Your task to perform on an android device: Go to ESPN.com Image 0: 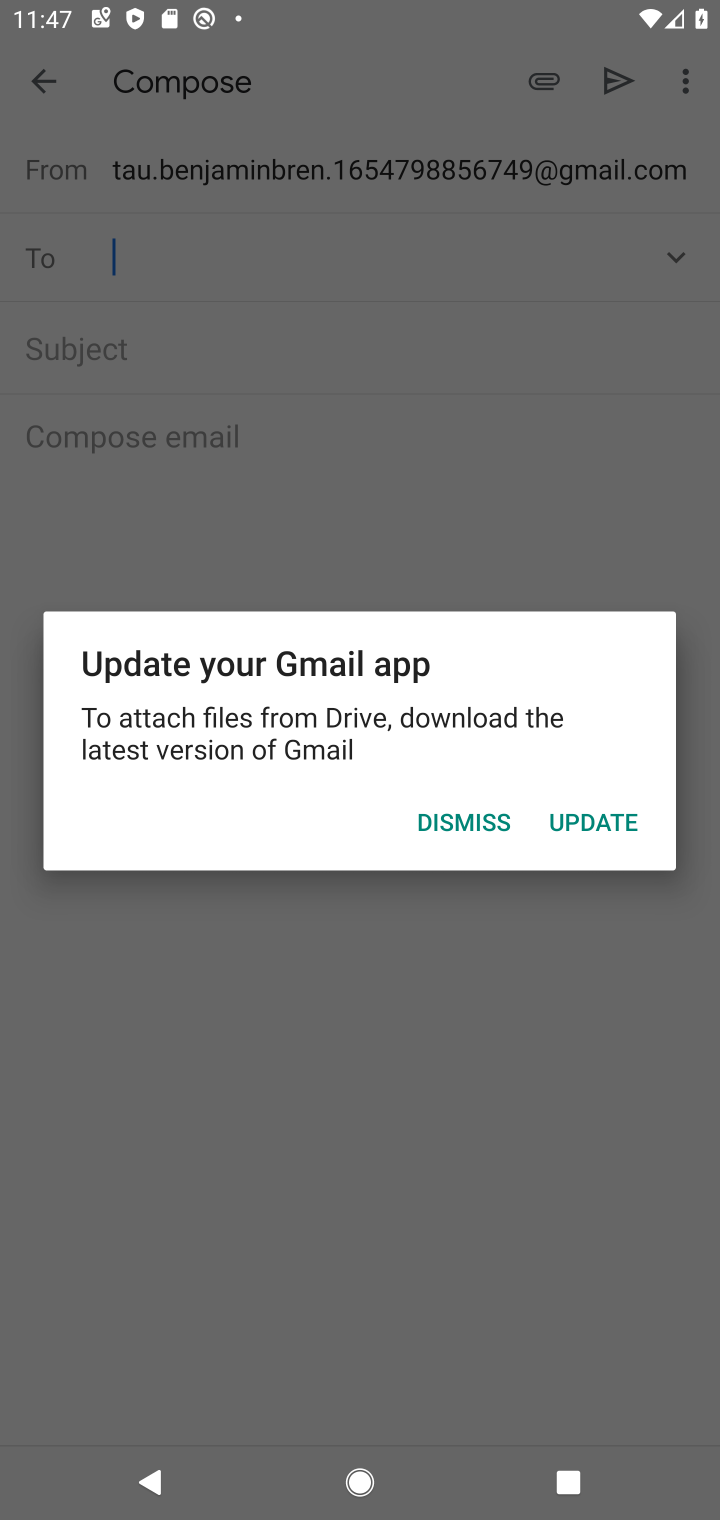
Step 0: press back button
Your task to perform on an android device: Go to ESPN.com Image 1: 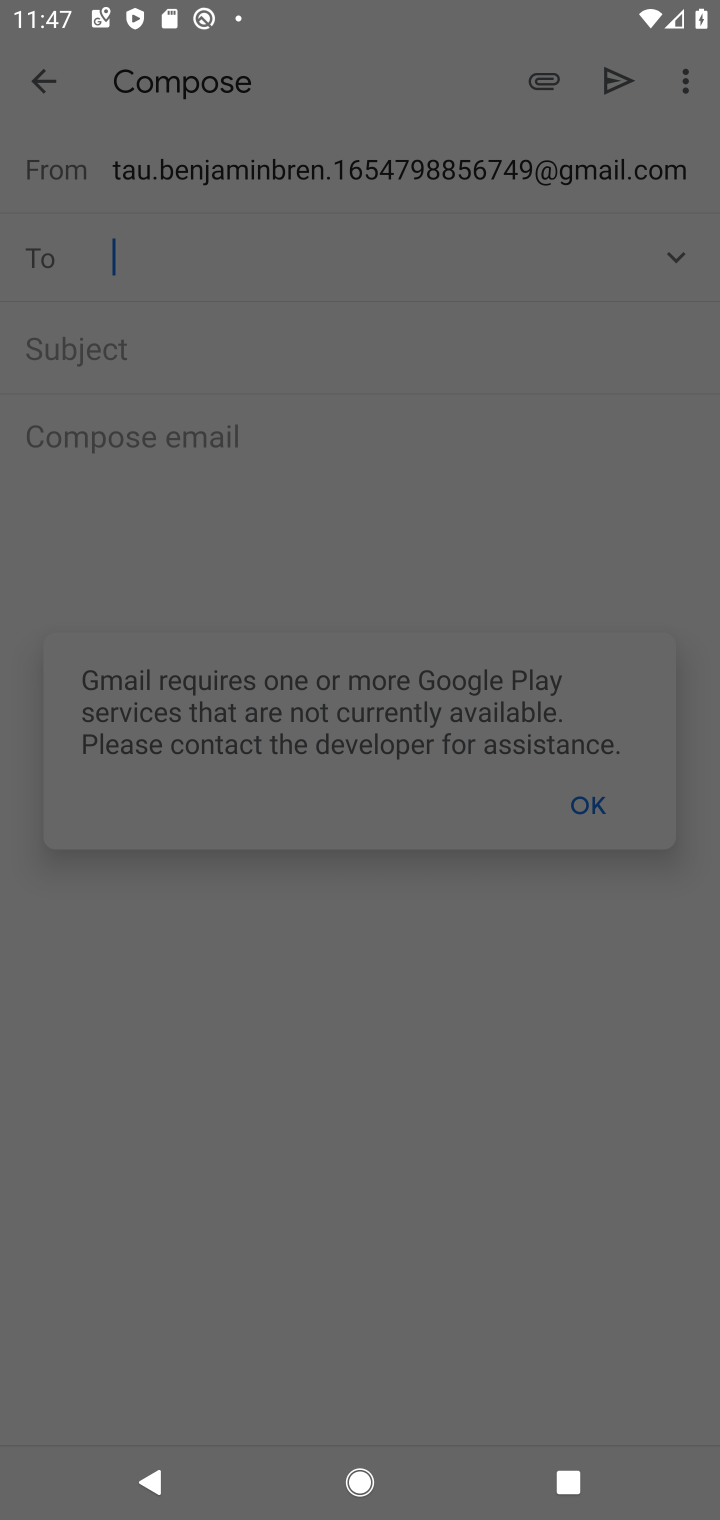
Step 1: press home button
Your task to perform on an android device: Go to ESPN.com Image 2: 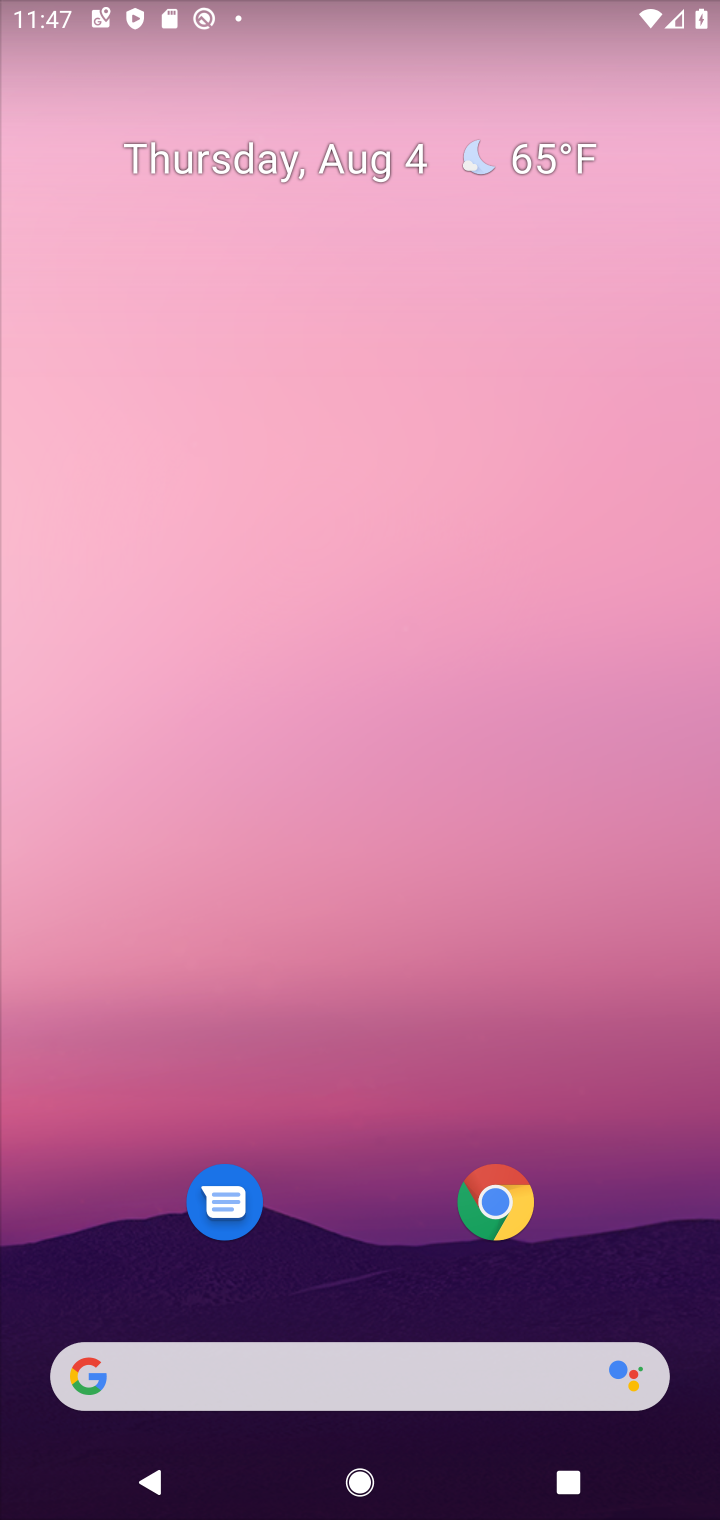
Step 2: click (518, 1195)
Your task to perform on an android device: Go to ESPN.com Image 3: 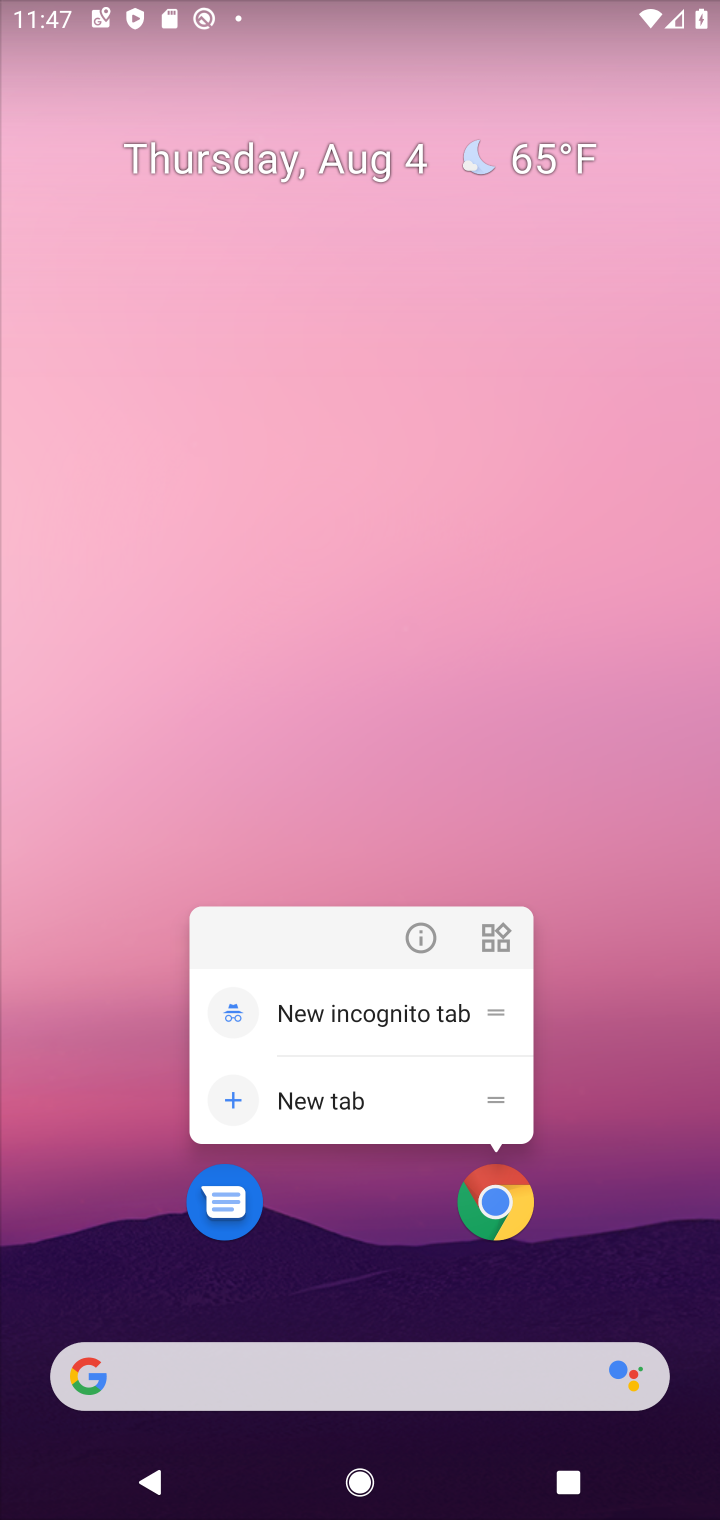
Step 3: click (505, 1199)
Your task to perform on an android device: Go to ESPN.com Image 4: 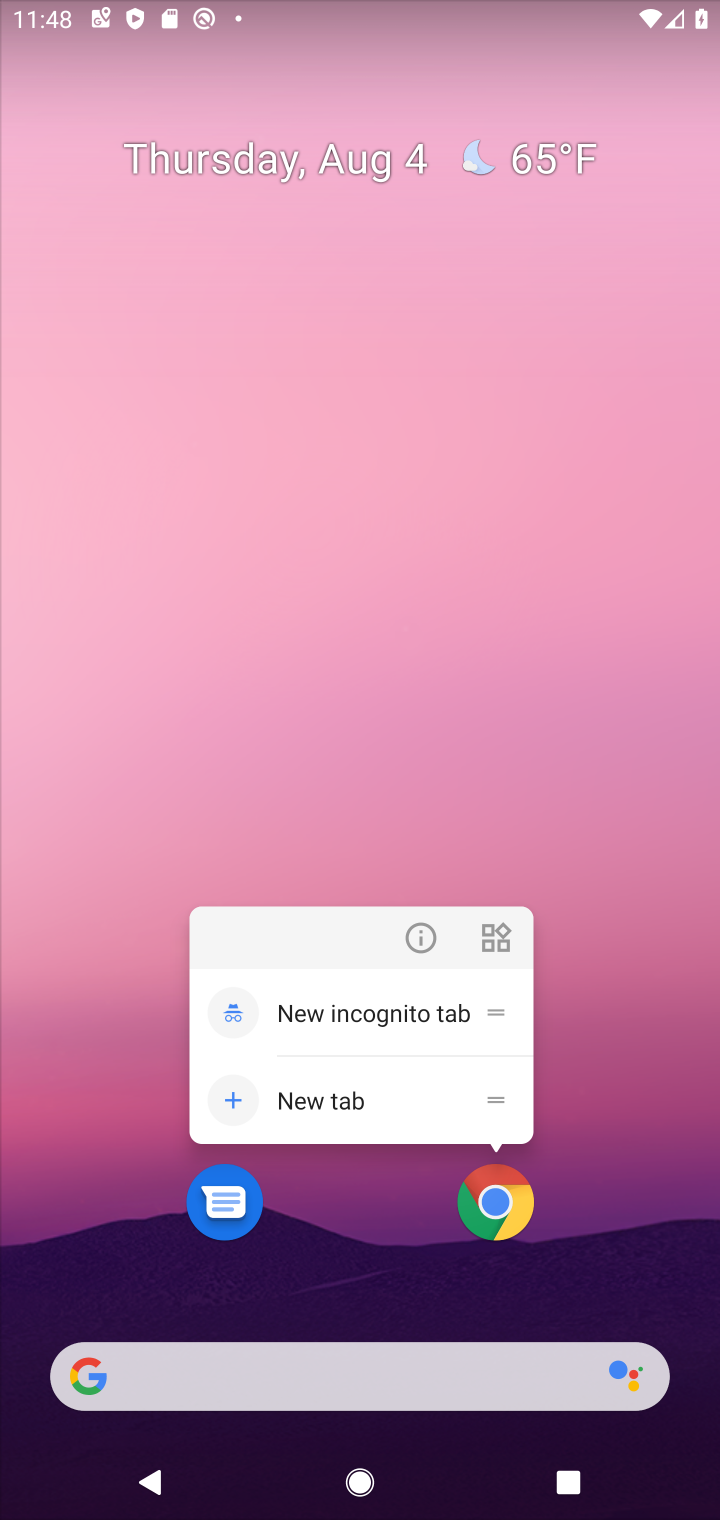
Step 4: click (501, 1199)
Your task to perform on an android device: Go to ESPN.com Image 5: 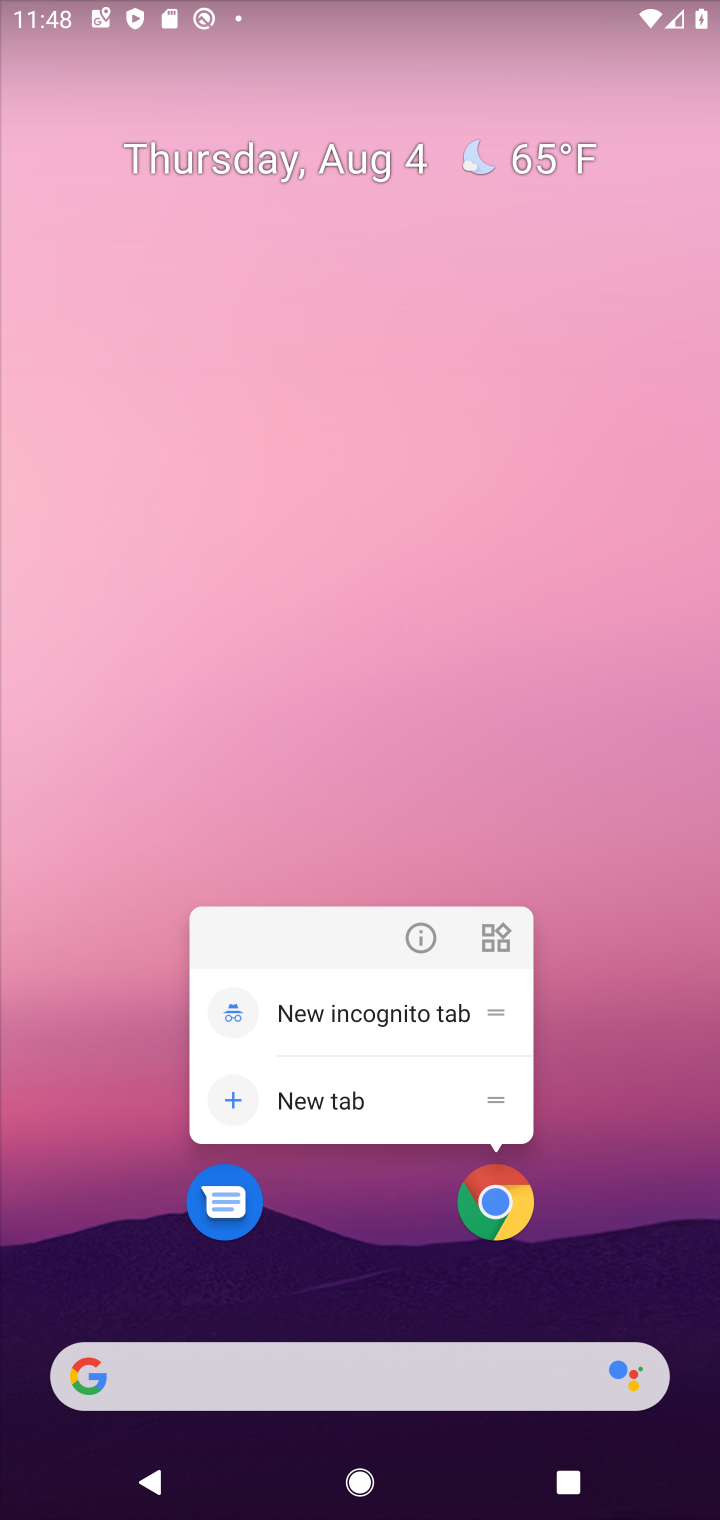
Step 5: click (501, 1199)
Your task to perform on an android device: Go to ESPN.com Image 6: 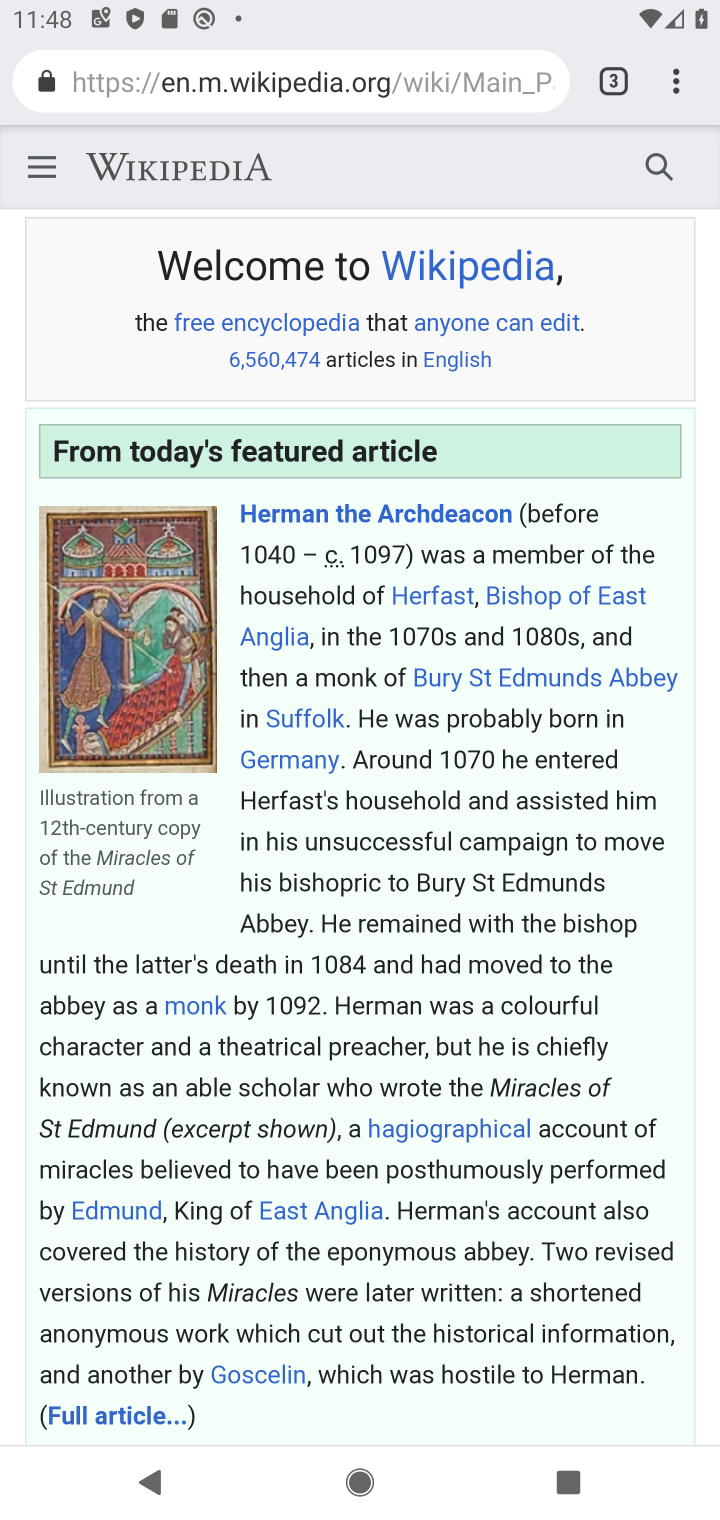
Step 6: click (616, 60)
Your task to perform on an android device: Go to ESPN.com Image 7: 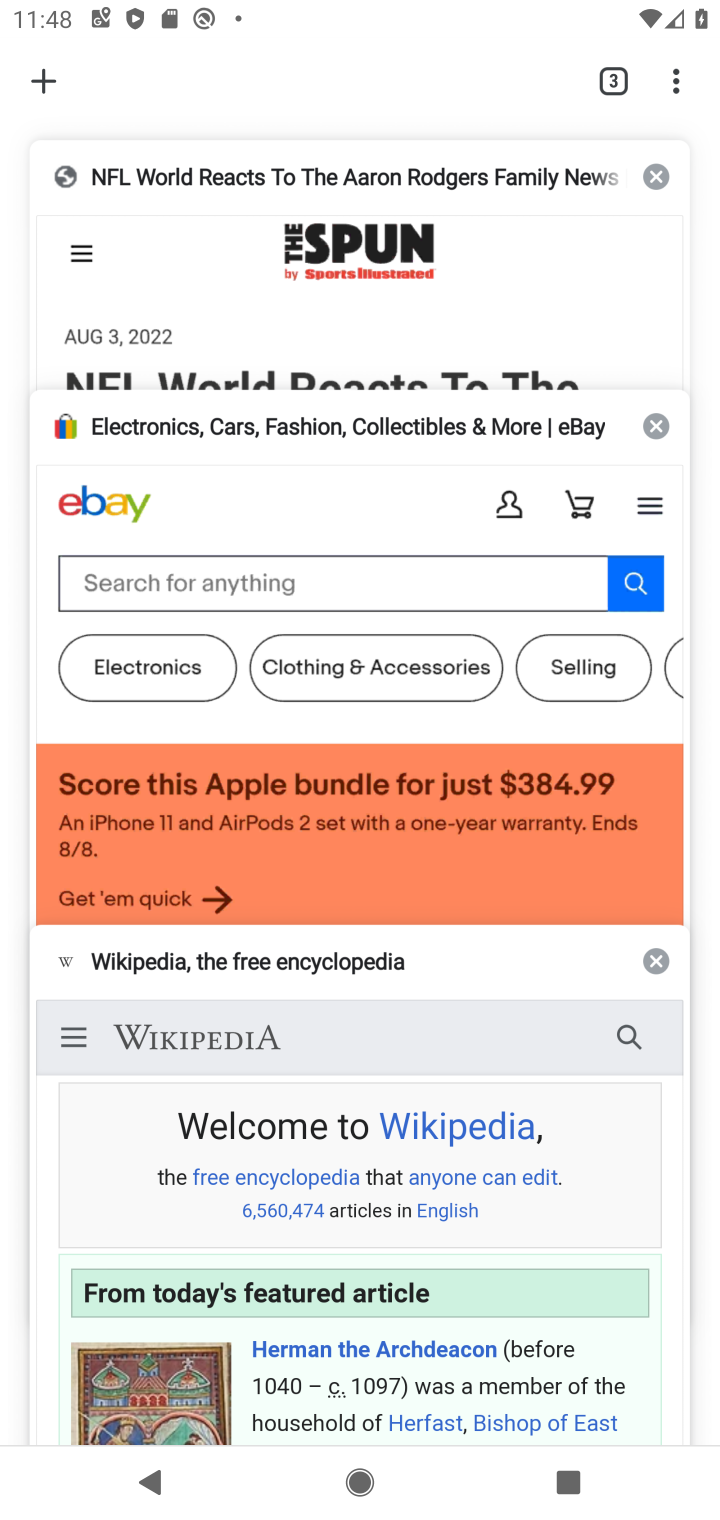
Step 7: click (49, 76)
Your task to perform on an android device: Go to ESPN.com Image 8: 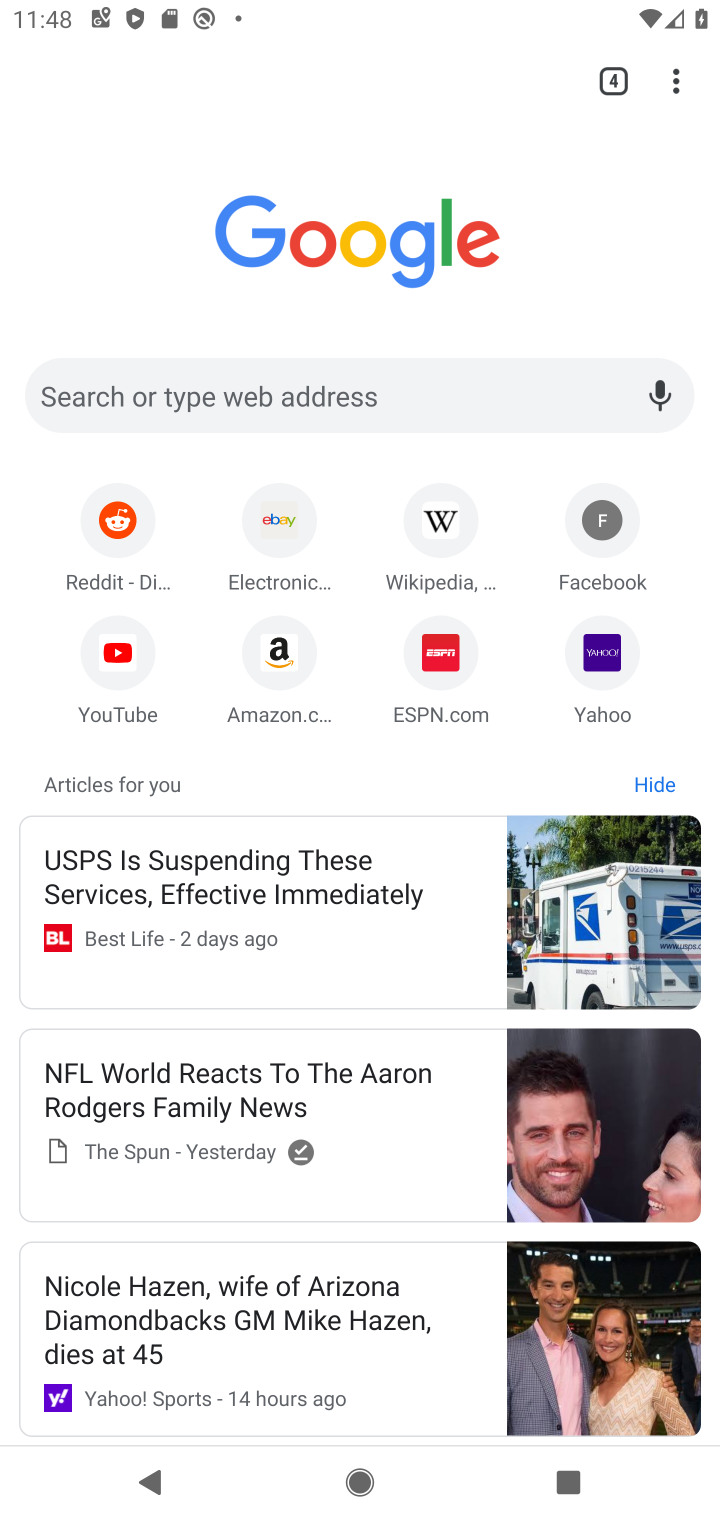
Step 8: click (438, 659)
Your task to perform on an android device: Go to ESPN.com Image 9: 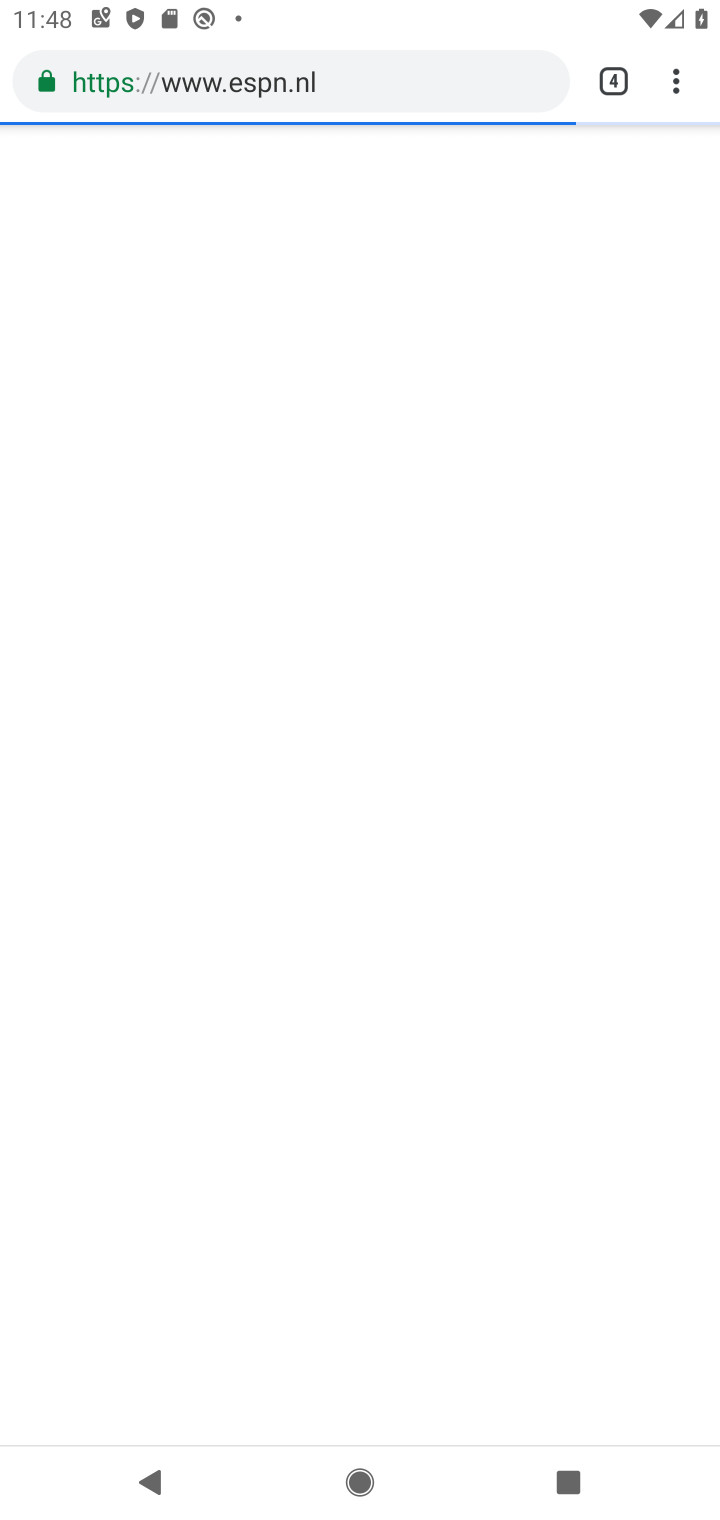
Step 9: task complete